Your task to perform on an android device: toggle notification dots Image 0: 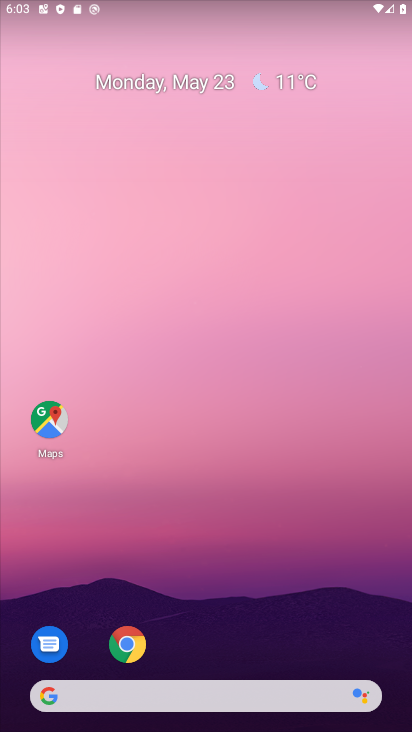
Step 0: drag from (208, 642) to (144, 291)
Your task to perform on an android device: toggle notification dots Image 1: 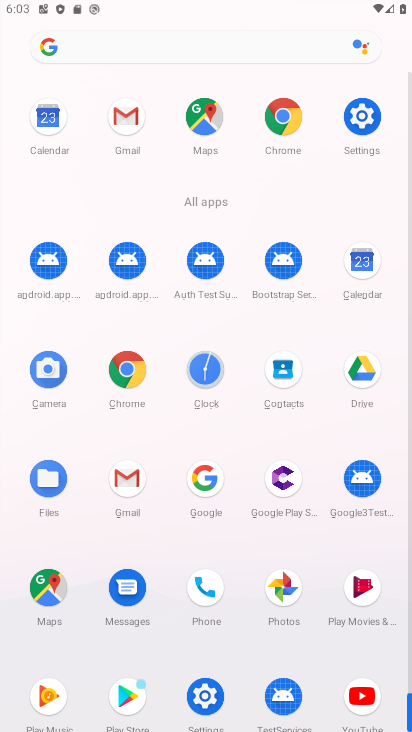
Step 1: click (358, 133)
Your task to perform on an android device: toggle notification dots Image 2: 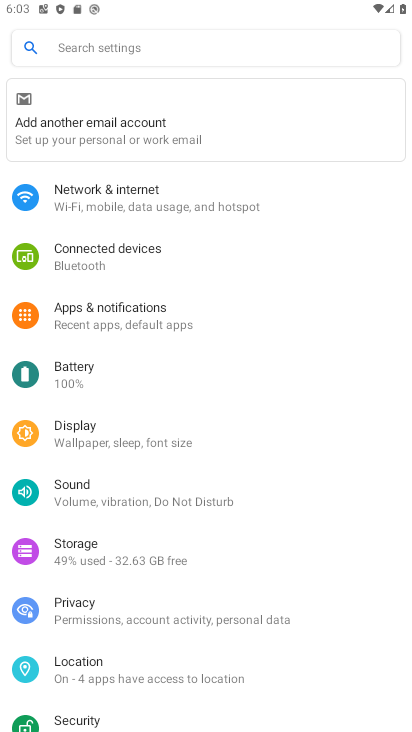
Step 2: click (117, 311)
Your task to perform on an android device: toggle notification dots Image 3: 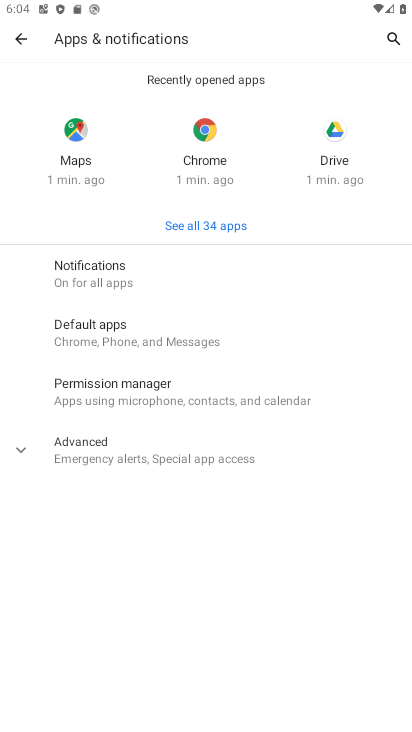
Step 3: click (98, 253)
Your task to perform on an android device: toggle notification dots Image 4: 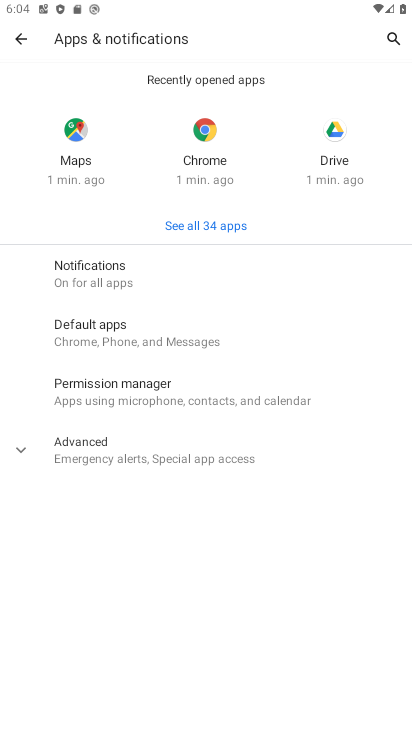
Step 4: click (104, 284)
Your task to perform on an android device: toggle notification dots Image 5: 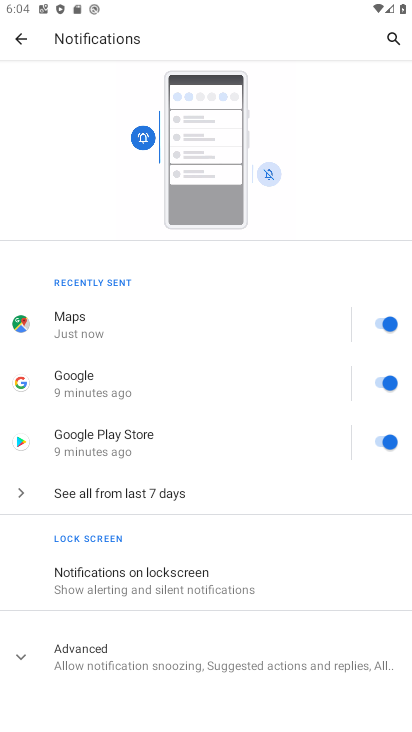
Step 5: click (169, 588)
Your task to perform on an android device: toggle notification dots Image 6: 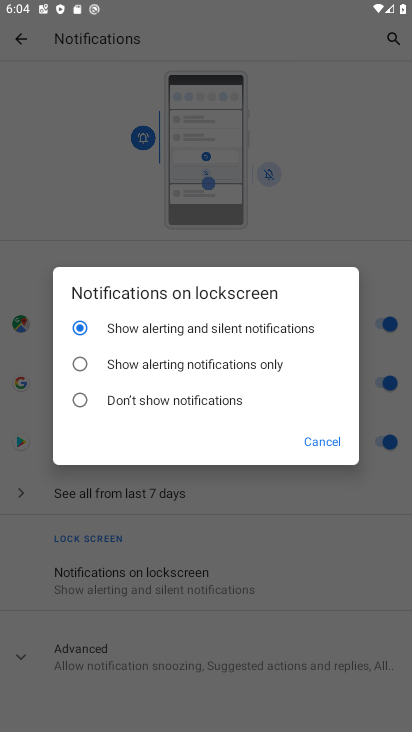
Step 6: click (318, 440)
Your task to perform on an android device: toggle notification dots Image 7: 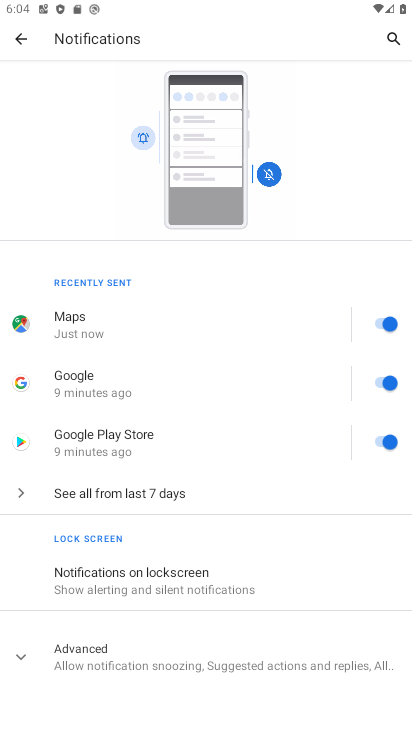
Step 7: click (112, 666)
Your task to perform on an android device: toggle notification dots Image 8: 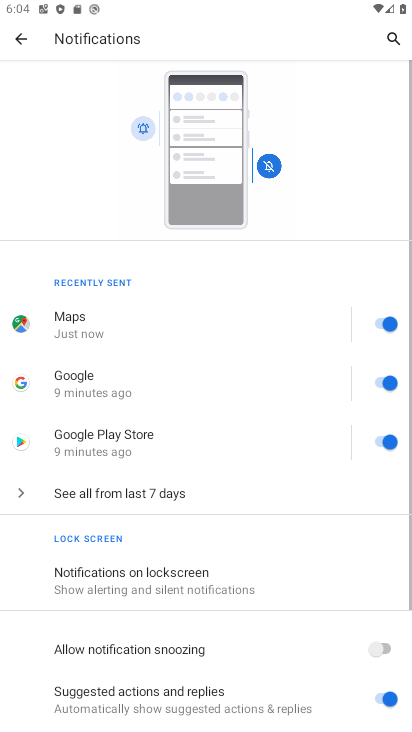
Step 8: drag from (153, 667) to (207, 391)
Your task to perform on an android device: toggle notification dots Image 9: 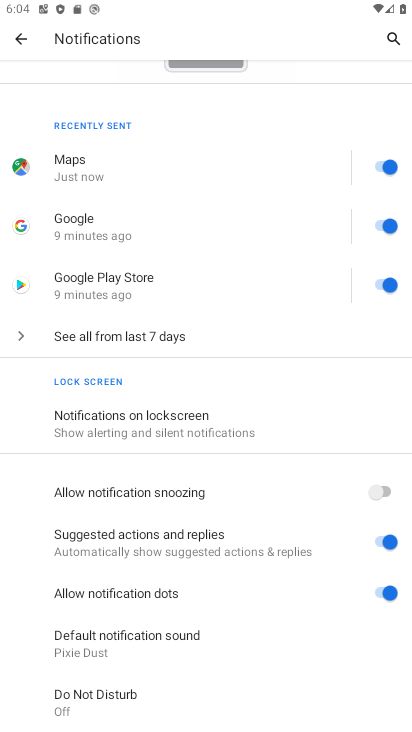
Step 9: click (384, 593)
Your task to perform on an android device: toggle notification dots Image 10: 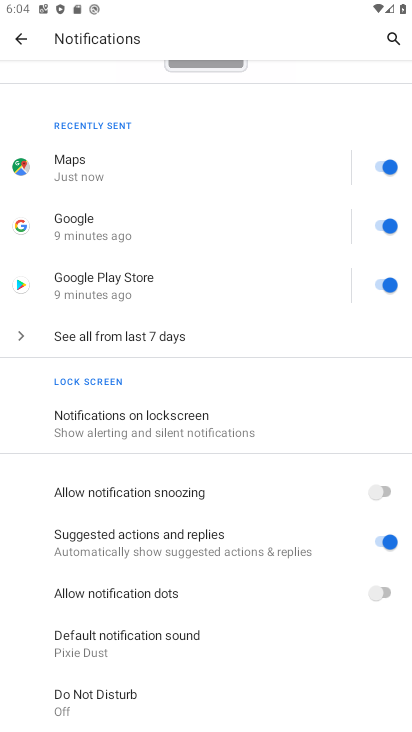
Step 10: task complete